Your task to perform on an android device: open app "Expedia: Hotels, Flights & Car" (install if not already installed) Image 0: 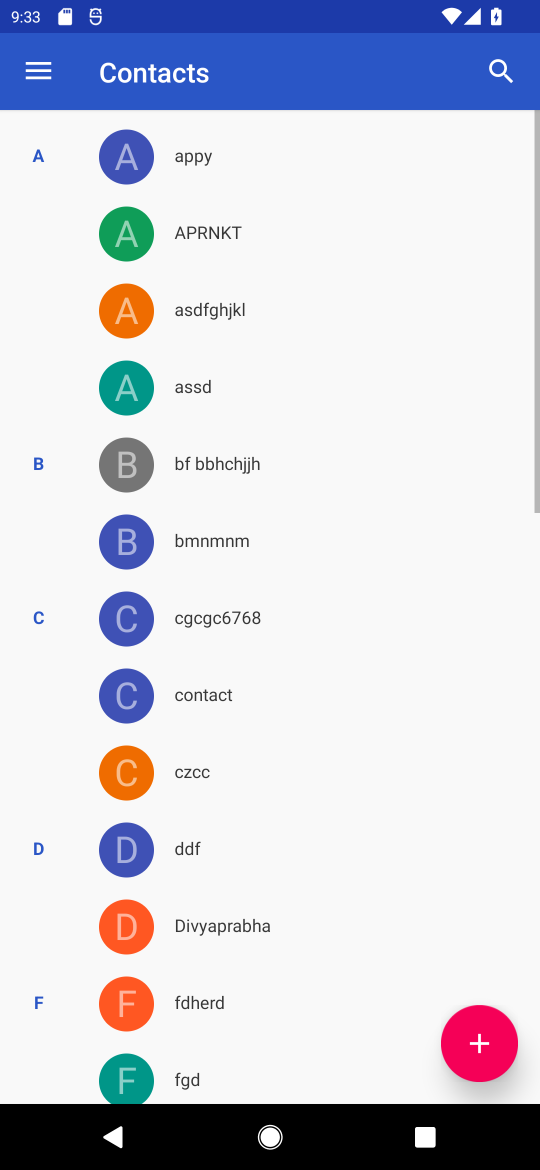
Step 0: press home button
Your task to perform on an android device: open app "Expedia: Hotels, Flights & Car" (install if not already installed) Image 1: 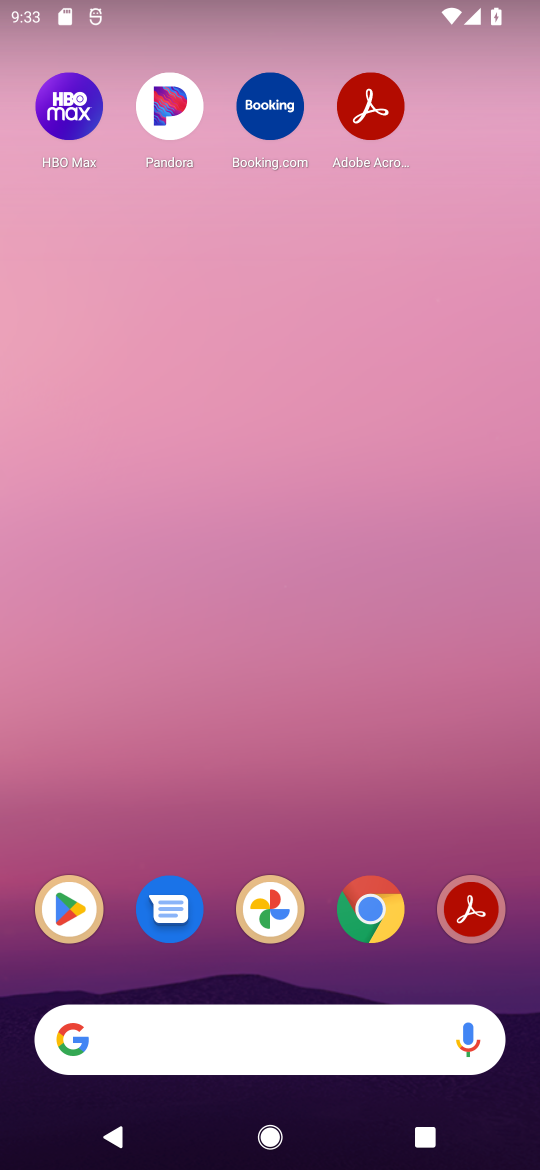
Step 1: click (55, 919)
Your task to perform on an android device: open app "Expedia: Hotels, Flights & Car" (install if not already installed) Image 2: 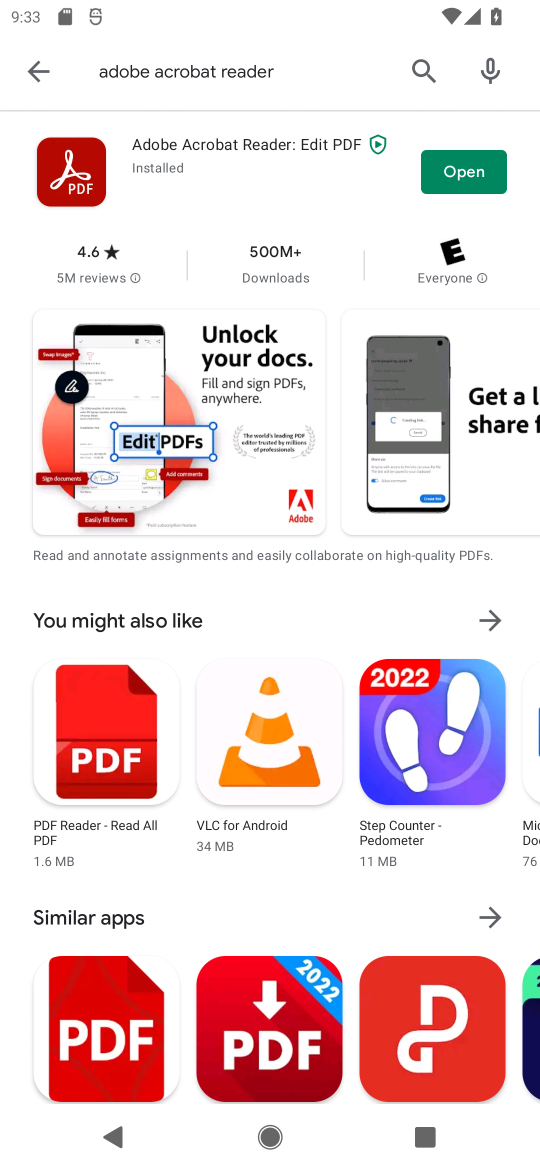
Step 2: click (248, 66)
Your task to perform on an android device: open app "Expedia: Hotels, Flights & Car" (install if not already installed) Image 3: 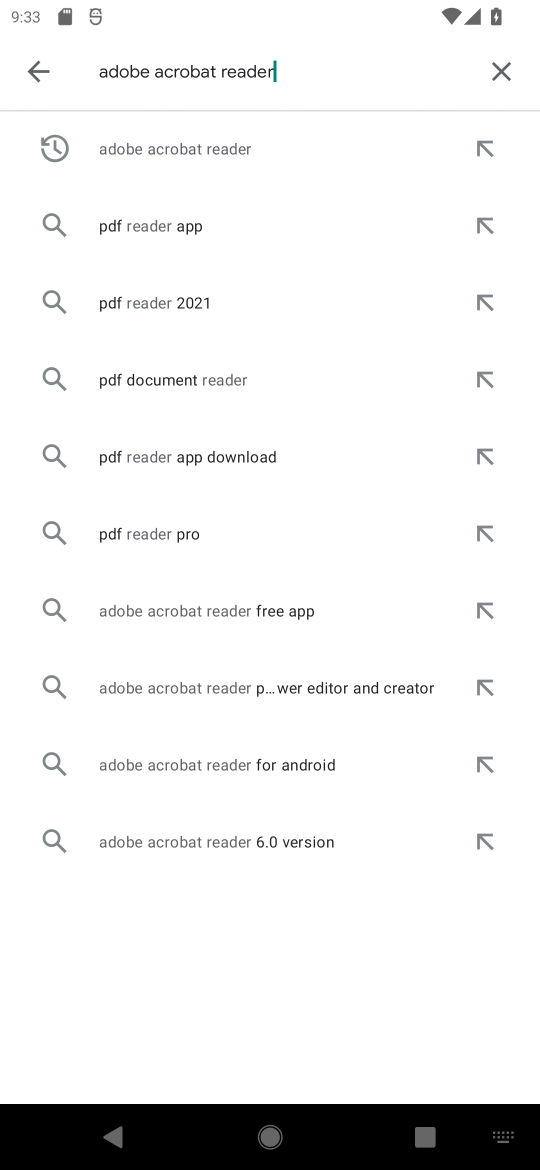
Step 3: click (498, 67)
Your task to perform on an android device: open app "Expedia: Hotels, Flights & Car" (install if not already installed) Image 4: 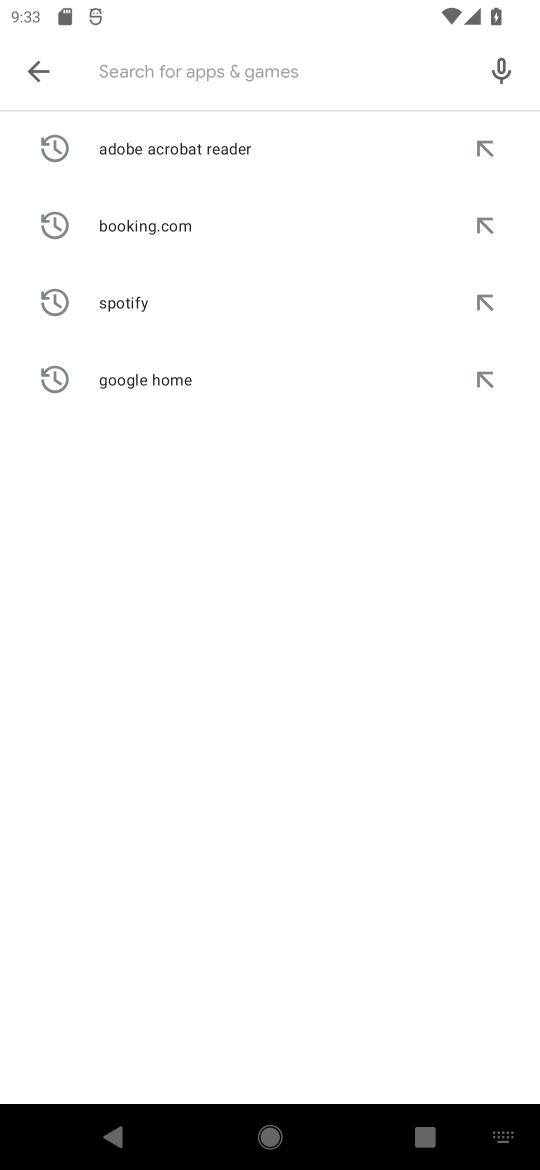
Step 4: type "expedia"
Your task to perform on an android device: open app "Expedia: Hotels, Flights & Car" (install if not already installed) Image 5: 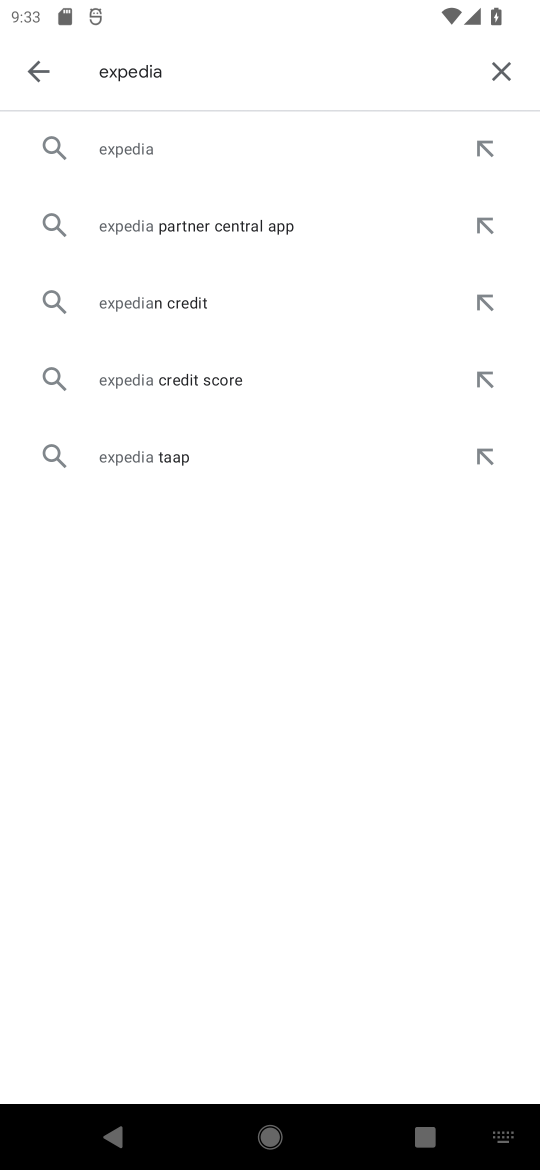
Step 5: click (147, 162)
Your task to perform on an android device: open app "Expedia: Hotels, Flights & Car" (install if not already installed) Image 6: 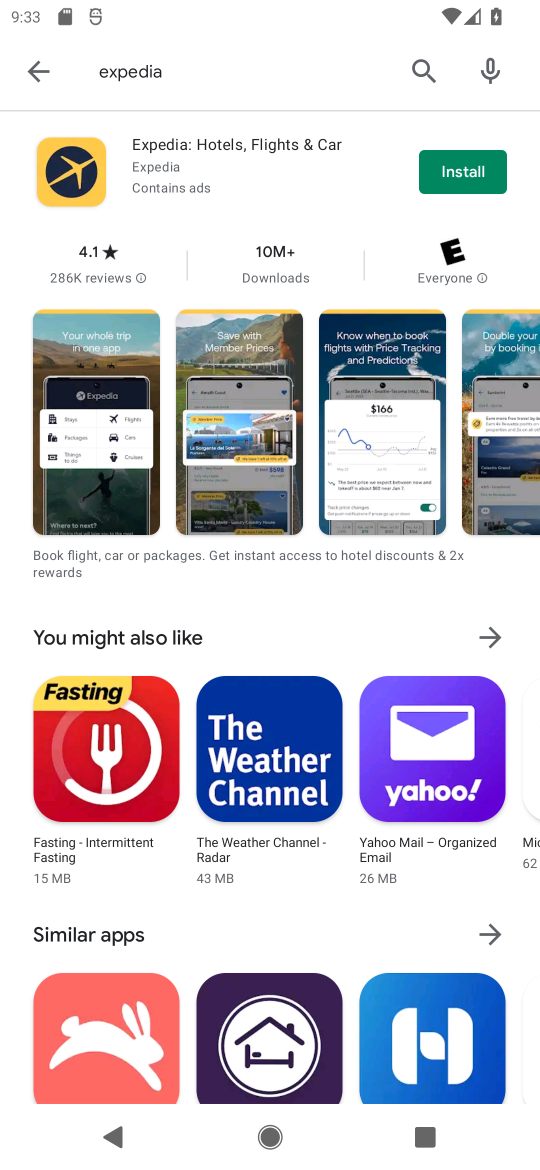
Step 6: click (490, 176)
Your task to perform on an android device: open app "Expedia: Hotels, Flights & Car" (install if not already installed) Image 7: 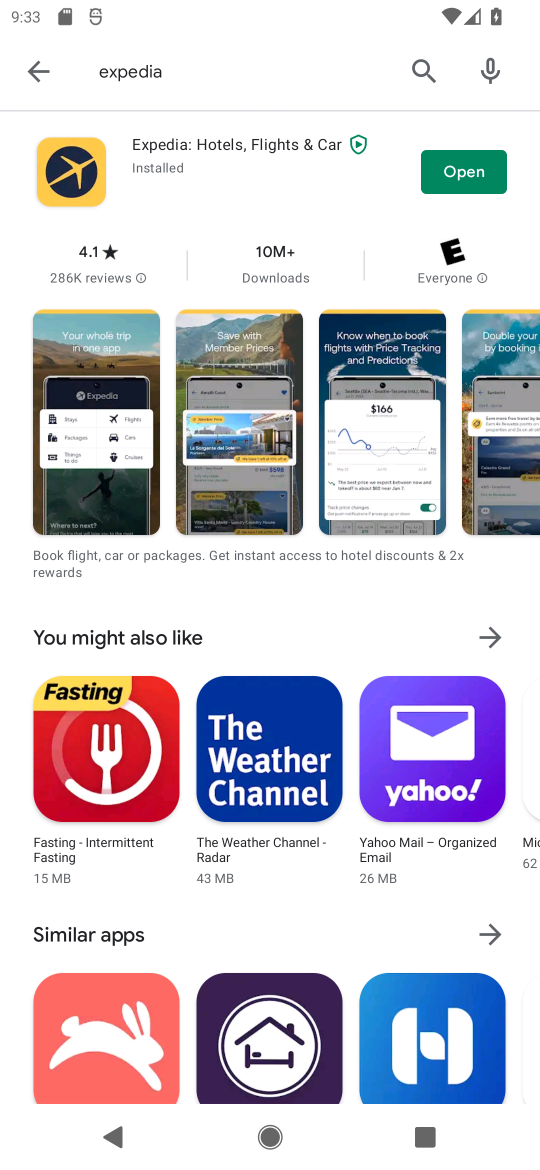
Step 7: click (468, 161)
Your task to perform on an android device: open app "Expedia: Hotels, Flights & Car" (install if not already installed) Image 8: 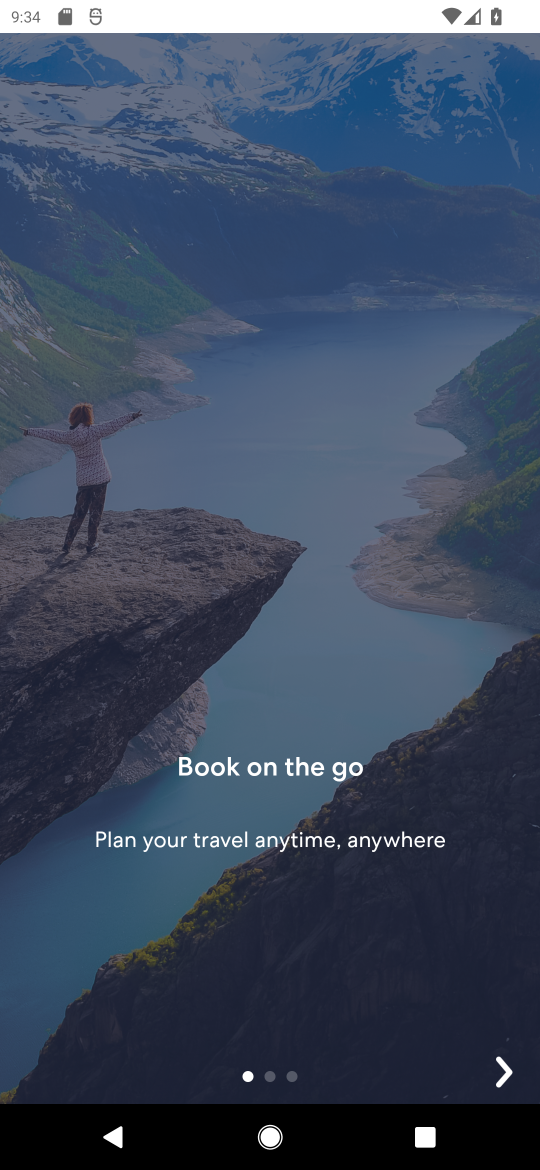
Step 8: click (507, 1069)
Your task to perform on an android device: open app "Expedia: Hotels, Flights & Car" (install if not already installed) Image 9: 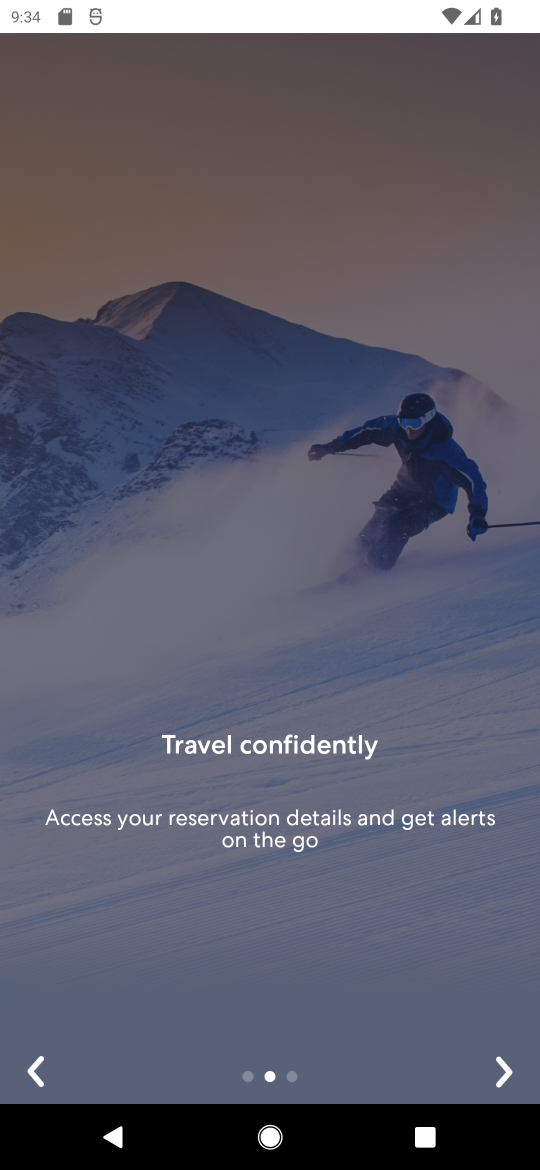
Step 9: click (498, 1066)
Your task to perform on an android device: open app "Expedia: Hotels, Flights & Car" (install if not already installed) Image 10: 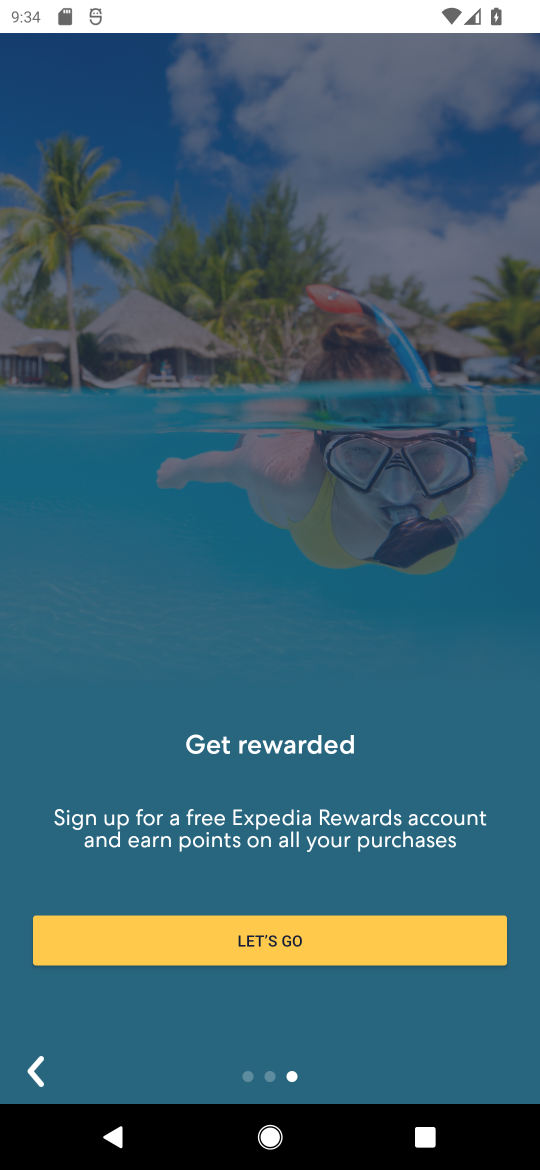
Step 10: click (373, 955)
Your task to perform on an android device: open app "Expedia: Hotels, Flights & Car" (install if not already installed) Image 11: 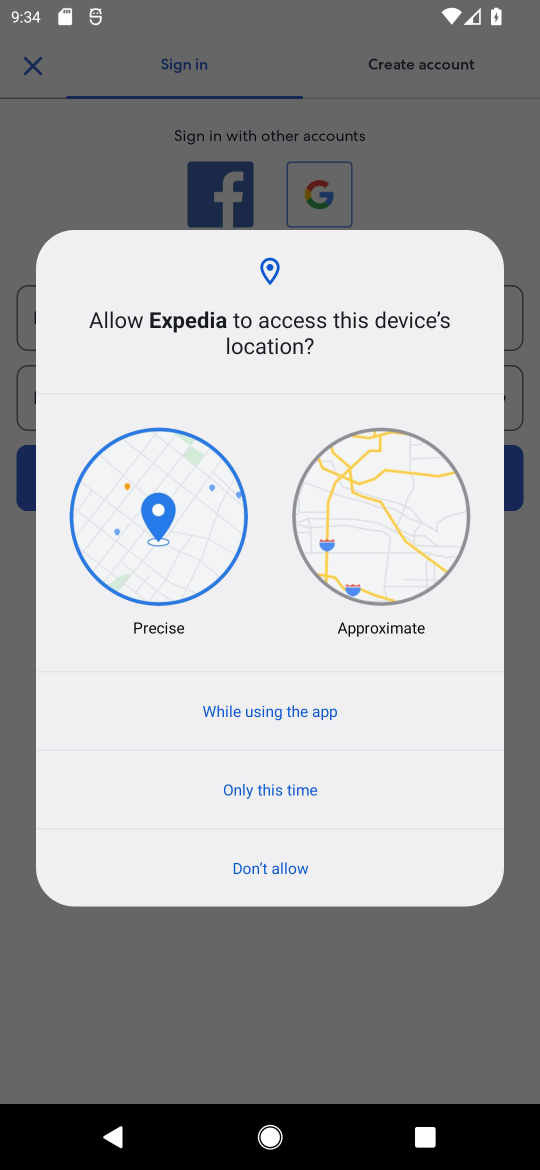
Step 11: click (351, 702)
Your task to perform on an android device: open app "Expedia: Hotels, Flights & Car" (install if not already installed) Image 12: 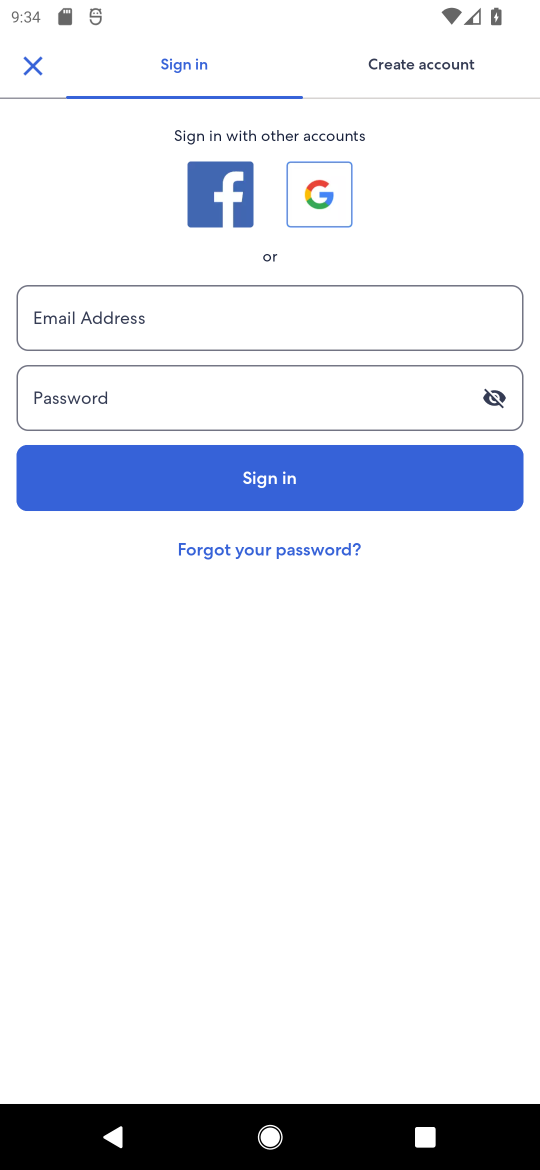
Step 12: task complete